Your task to perform on an android device: Go to settings Image 0: 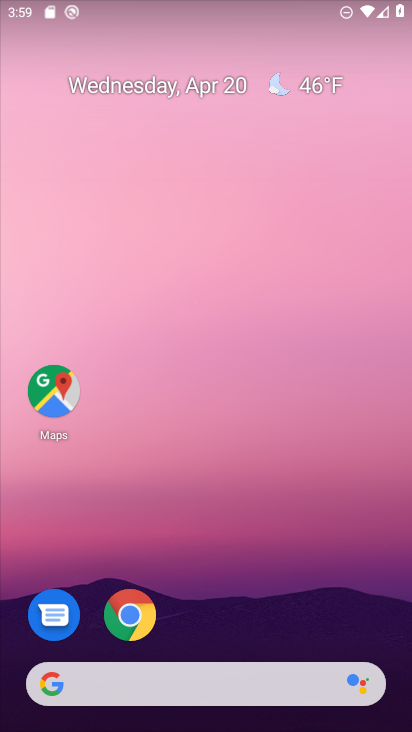
Step 0: drag from (341, 519) to (408, 161)
Your task to perform on an android device: Go to settings Image 1: 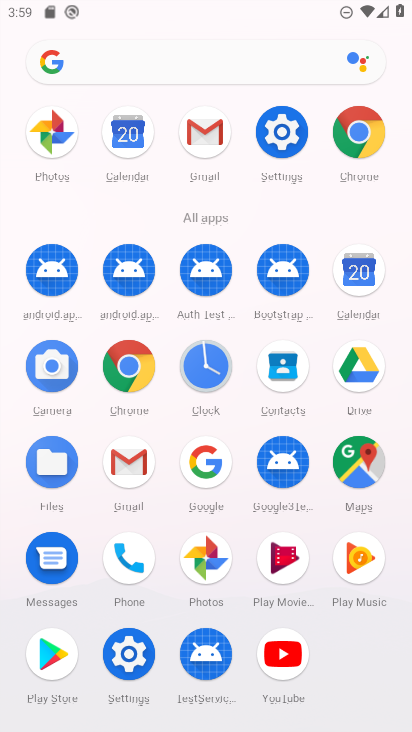
Step 1: click (309, 125)
Your task to perform on an android device: Go to settings Image 2: 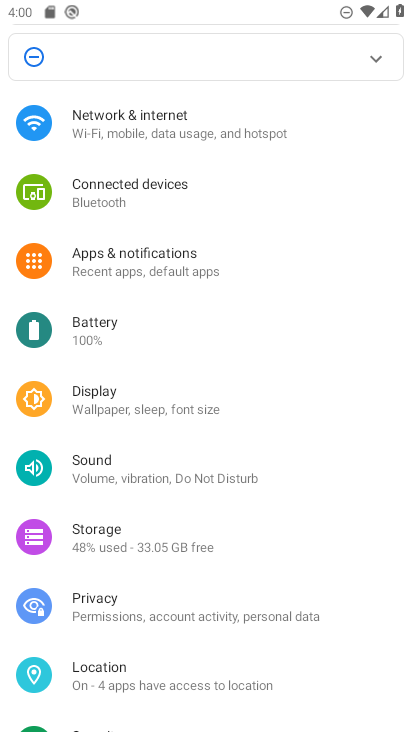
Step 2: task complete